Your task to perform on an android device: open app "Instagram" Image 0: 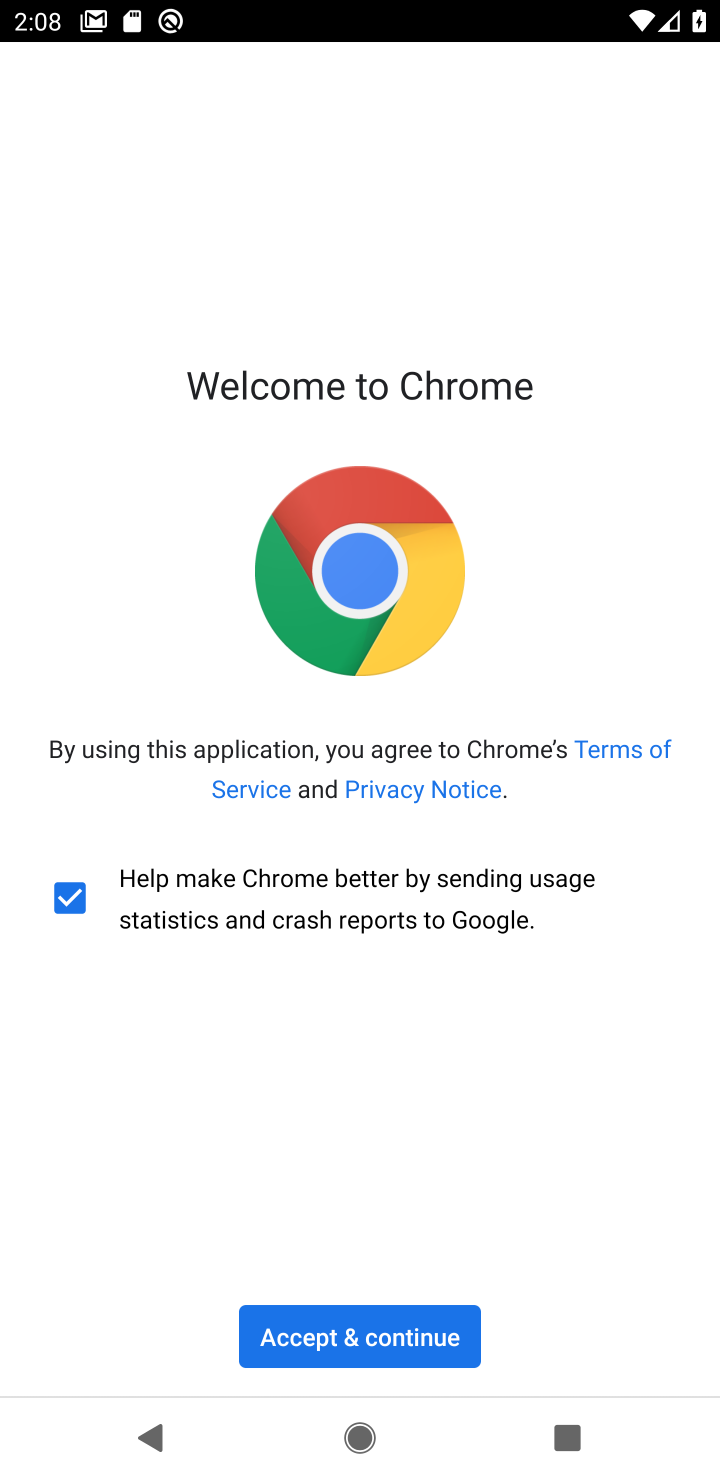
Step 0: press home button
Your task to perform on an android device: open app "Instagram" Image 1: 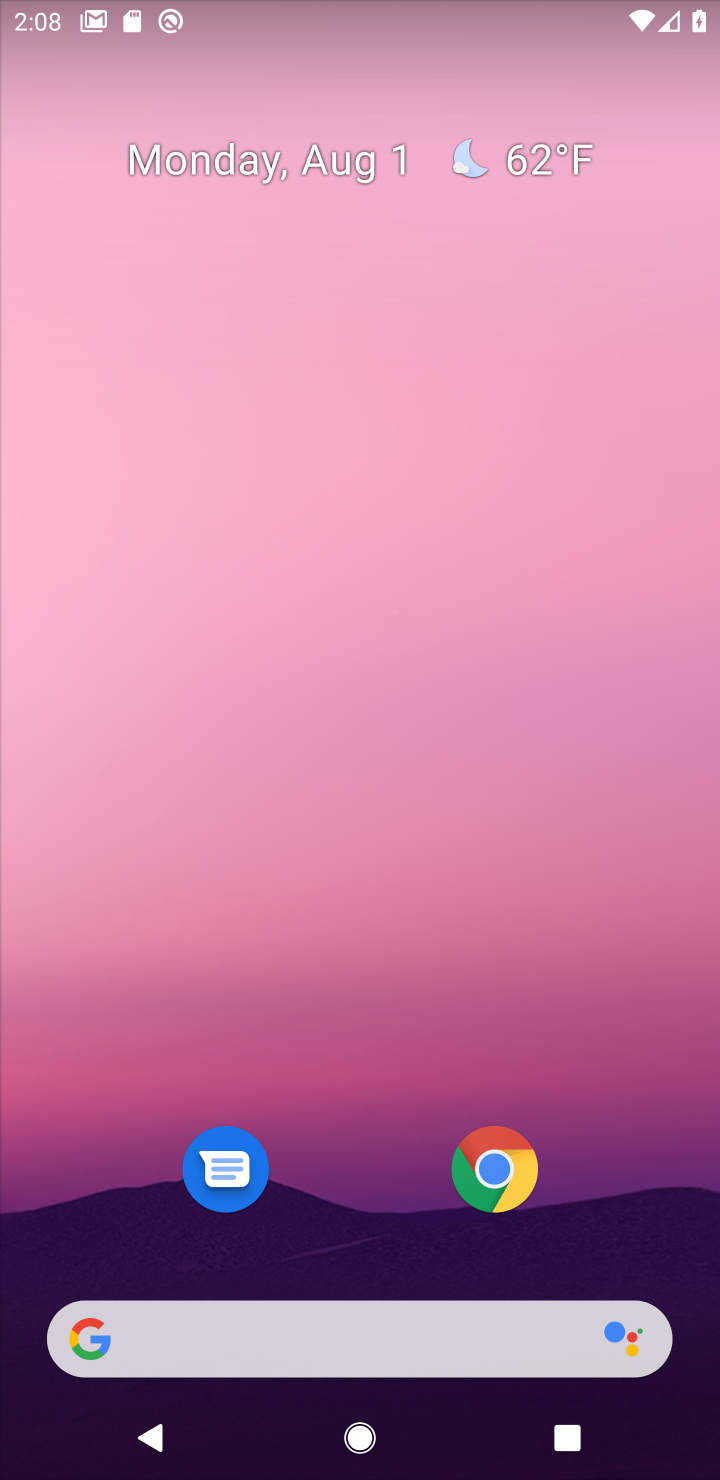
Step 1: drag from (263, 1184) to (397, 498)
Your task to perform on an android device: open app "Instagram" Image 2: 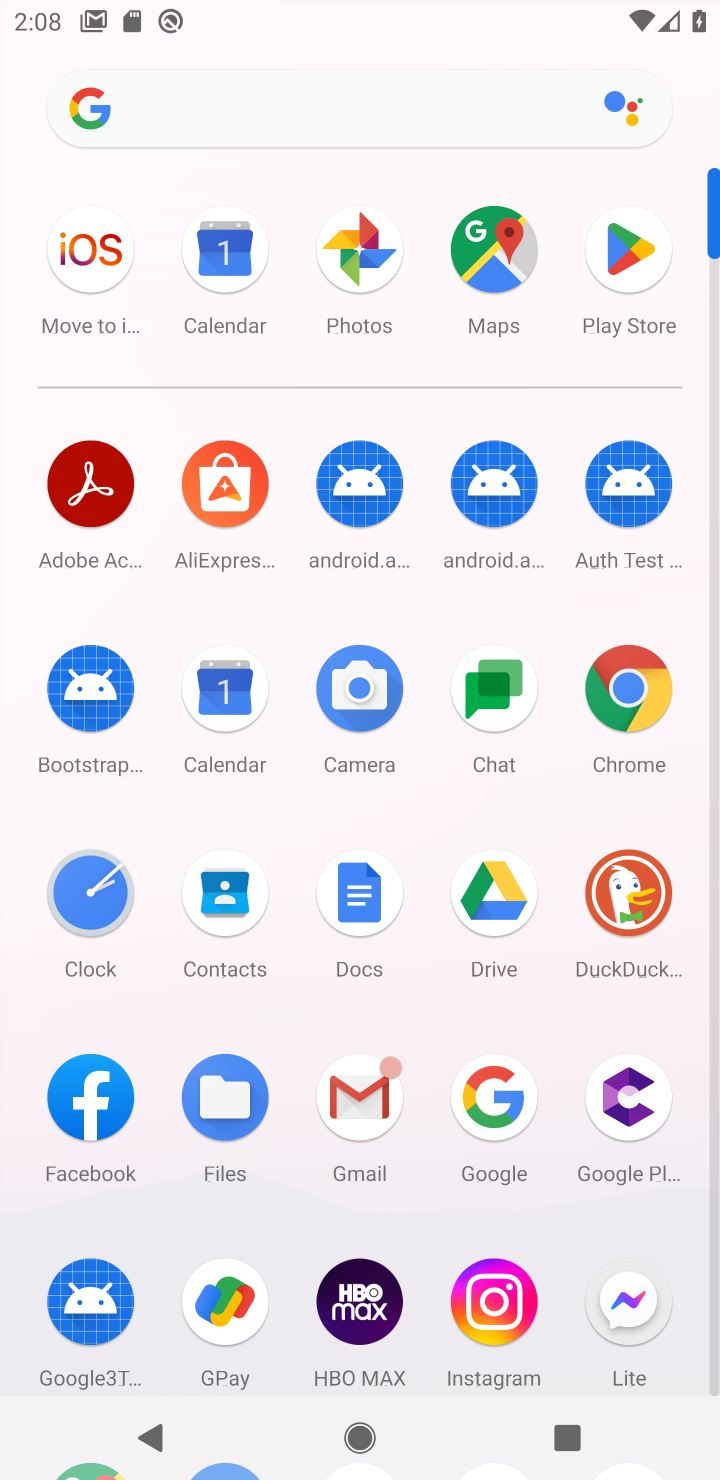
Step 2: click (506, 1300)
Your task to perform on an android device: open app "Instagram" Image 3: 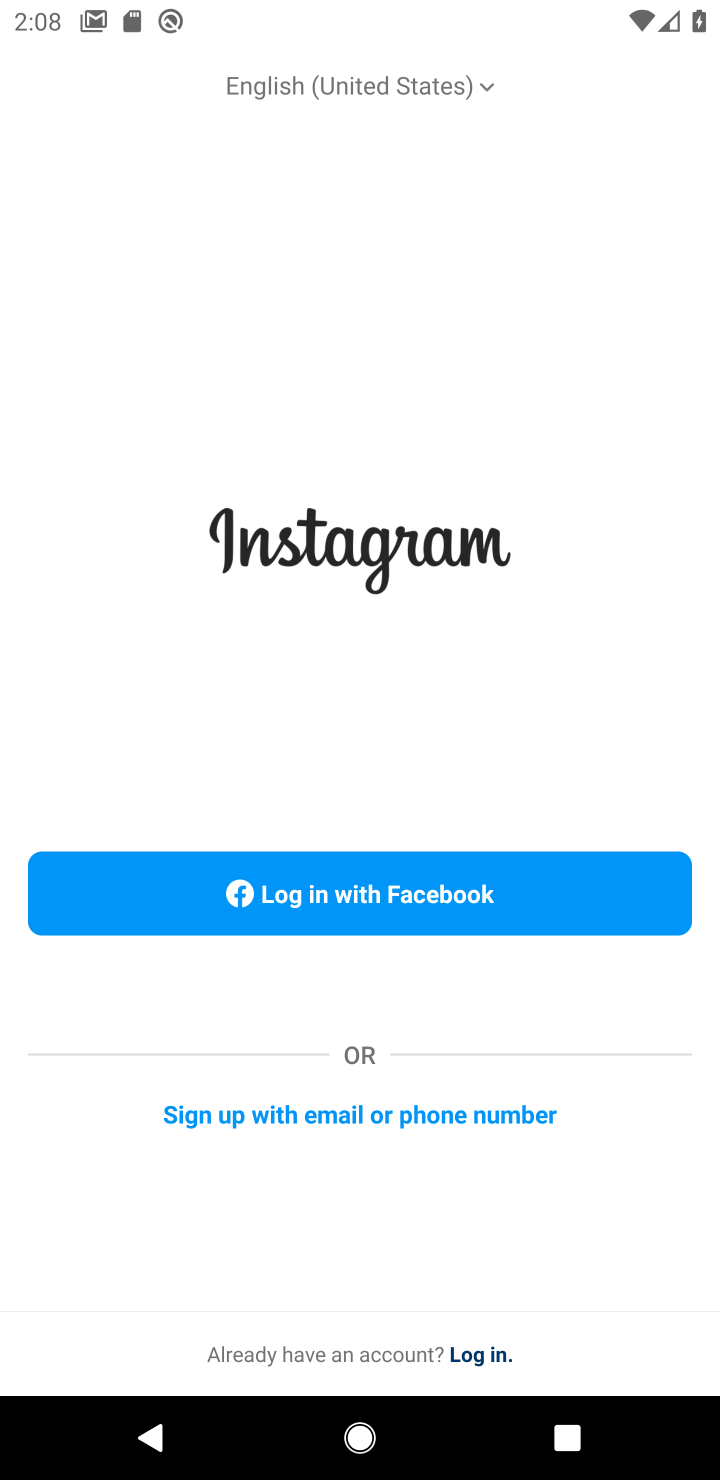
Step 3: task complete